Your task to perform on an android device: open app "Pinterest" (install if not already installed) and go to login screen Image 0: 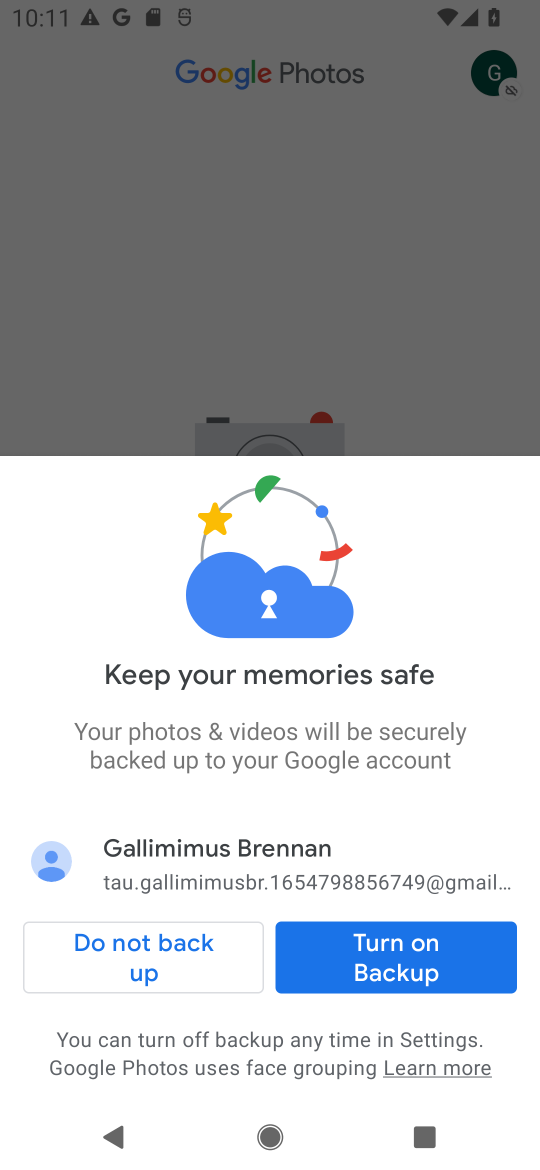
Step 0: press home button
Your task to perform on an android device: open app "Pinterest" (install if not already installed) and go to login screen Image 1: 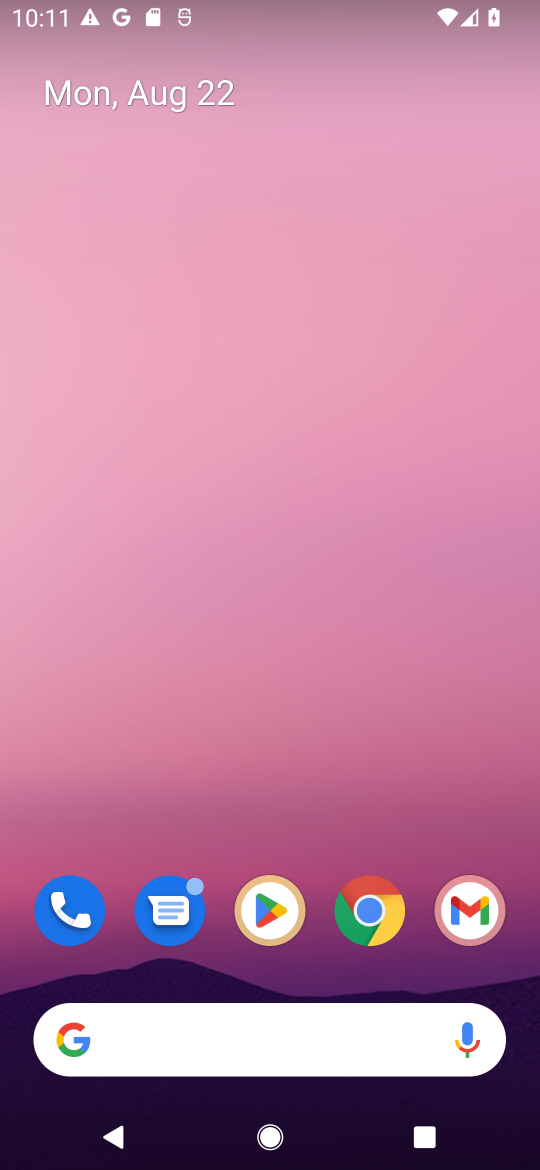
Step 1: click (267, 919)
Your task to perform on an android device: open app "Pinterest" (install if not already installed) and go to login screen Image 2: 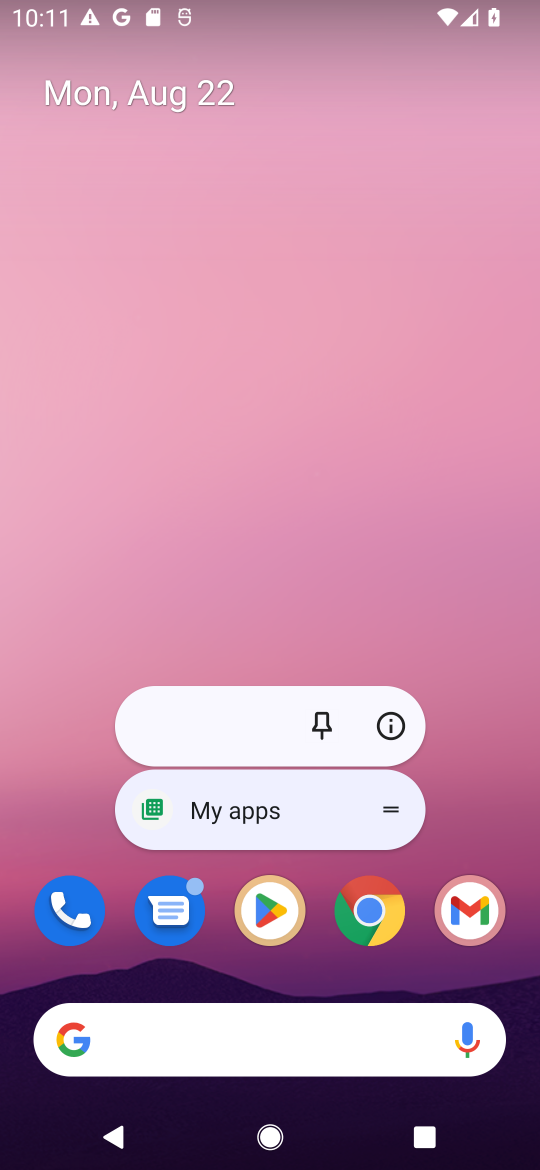
Step 2: click (244, 916)
Your task to perform on an android device: open app "Pinterest" (install if not already installed) and go to login screen Image 3: 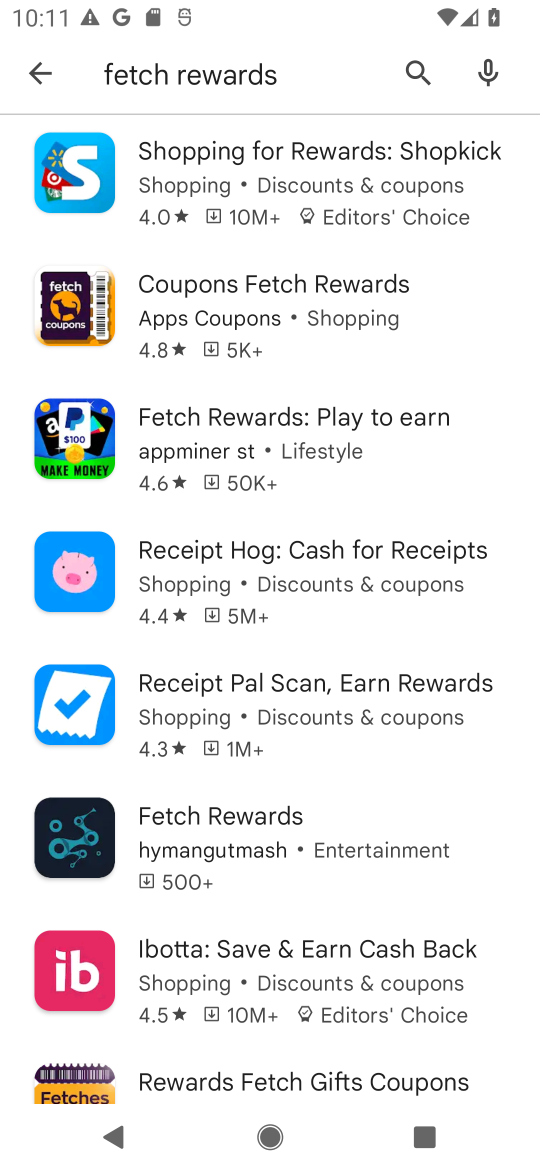
Step 3: click (410, 75)
Your task to perform on an android device: open app "Pinterest" (install if not already installed) and go to login screen Image 4: 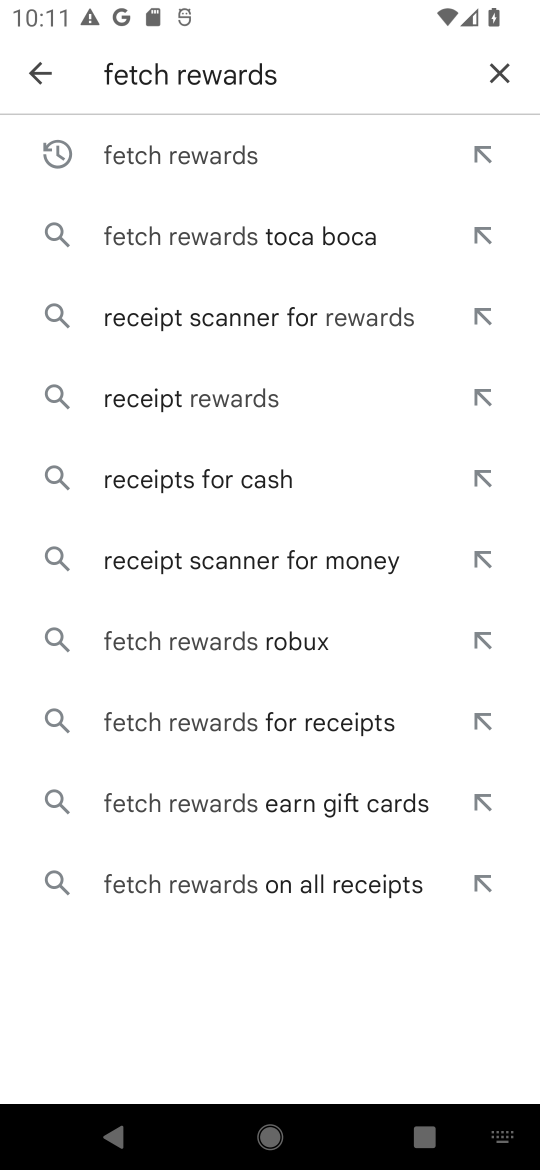
Step 4: click (498, 76)
Your task to perform on an android device: open app "Pinterest" (install if not already installed) and go to login screen Image 5: 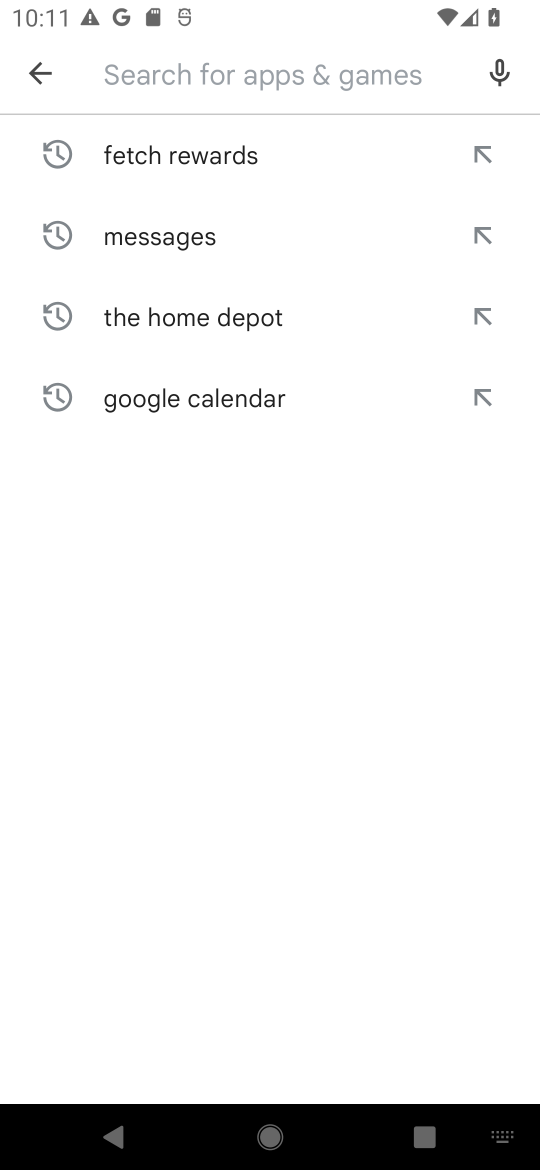
Step 5: type "Pinterest"
Your task to perform on an android device: open app "Pinterest" (install if not already installed) and go to login screen Image 6: 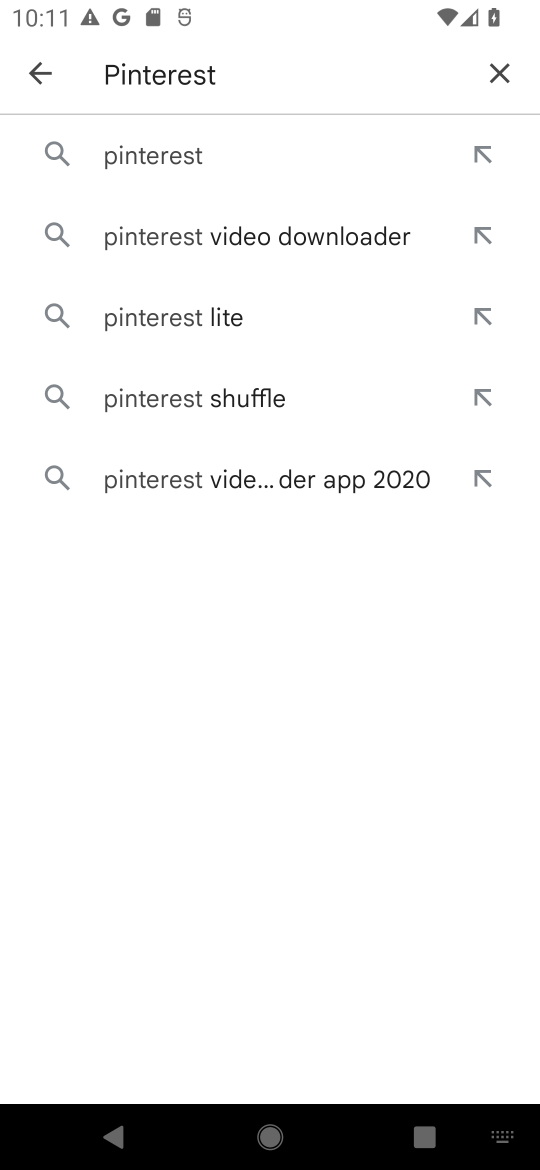
Step 6: click (208, 154)
Your task to perform on an android device: open app "Pinterest" (install if not already installed) and go to login screen Image 7: 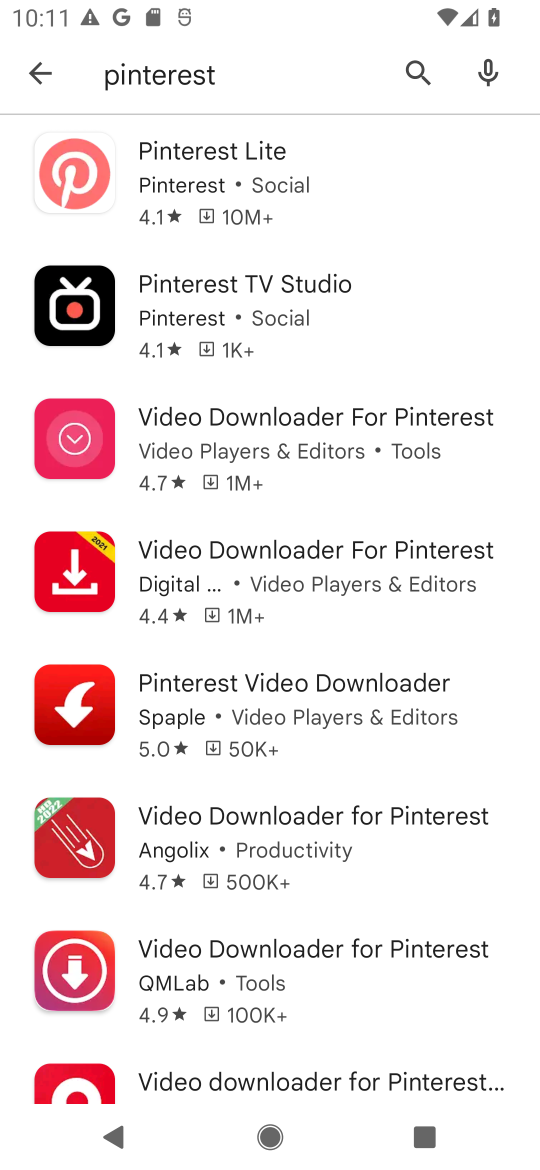
Step 7: click (248, 197)
Your task to perform on an android device: open app "Pinterest" (install if not already installed) and go to login screen Image 8: 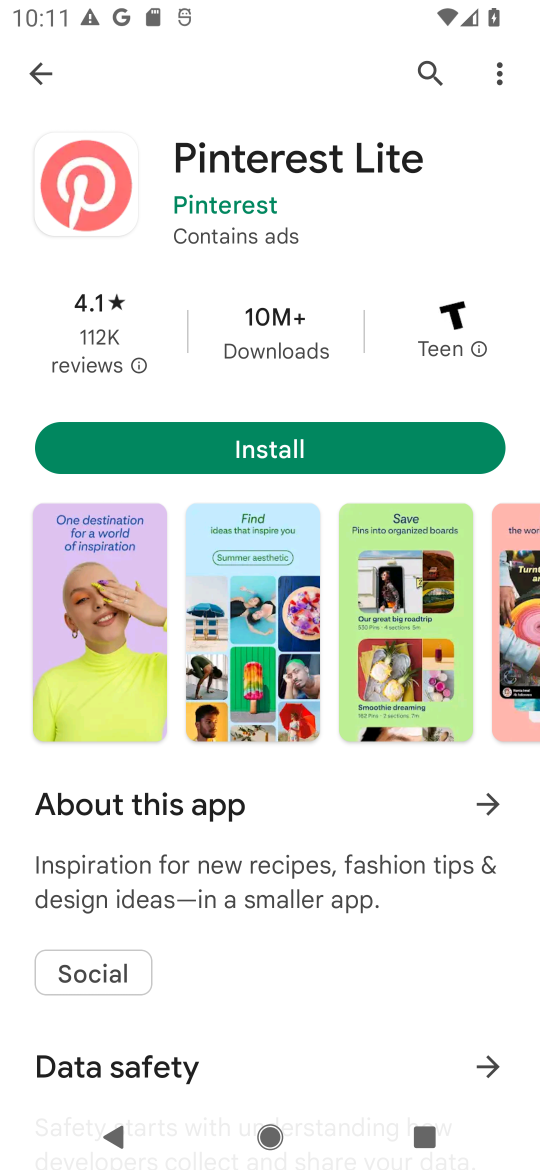
Step 8: click (293, 434)
Your task to perform on an android device: open app "Pinterest" (install if not already installed) and go to login screen Image 9: 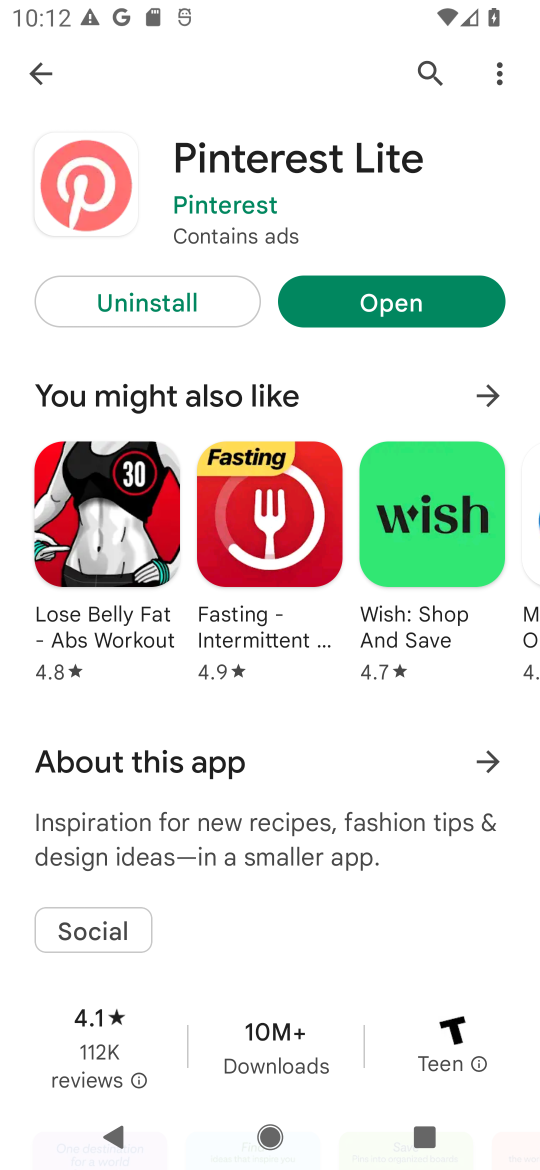
Step 9: click (359, 300)
Your task to perform on an android device: open app "Pinterest" (install if not already installed) and go to login screen Image 10: 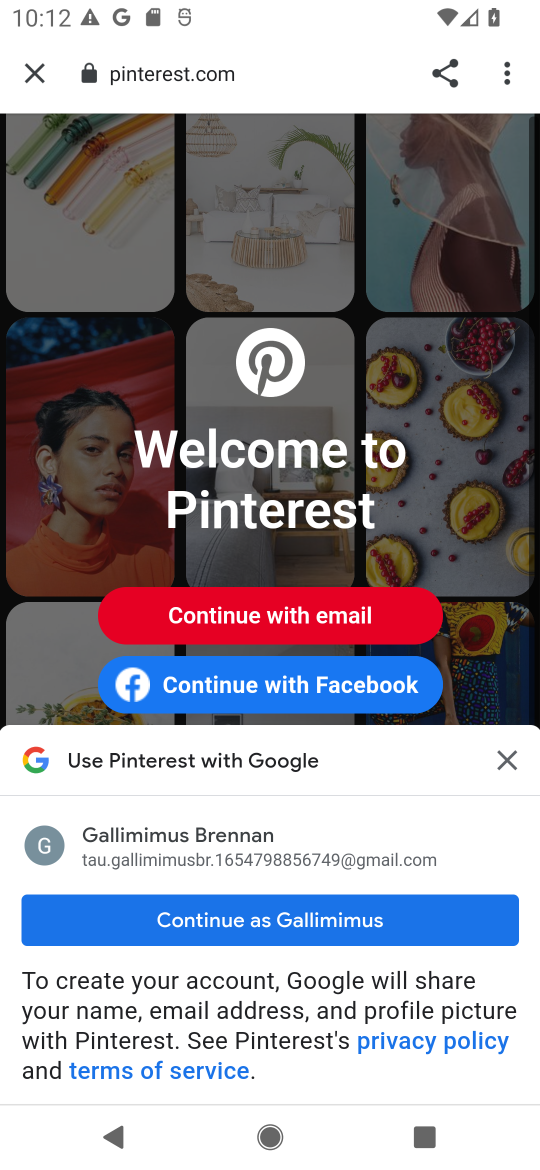
Step 10: task complete